Your task to perform on an android device: turn off wifi Image 0: 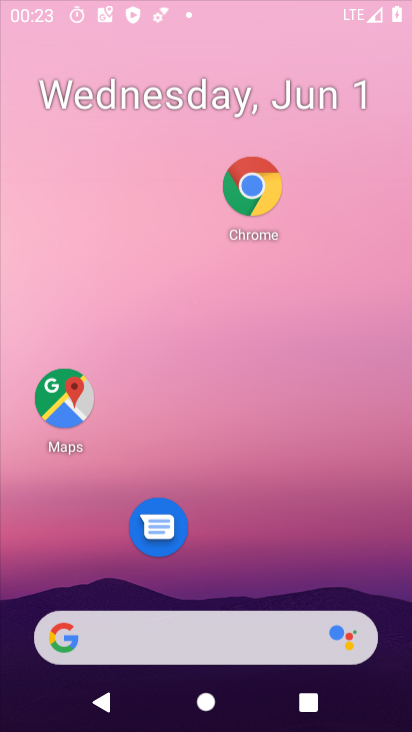
Step 0: click (5, 361)
Your task to perform on an android device: turn off wifi Image 1: 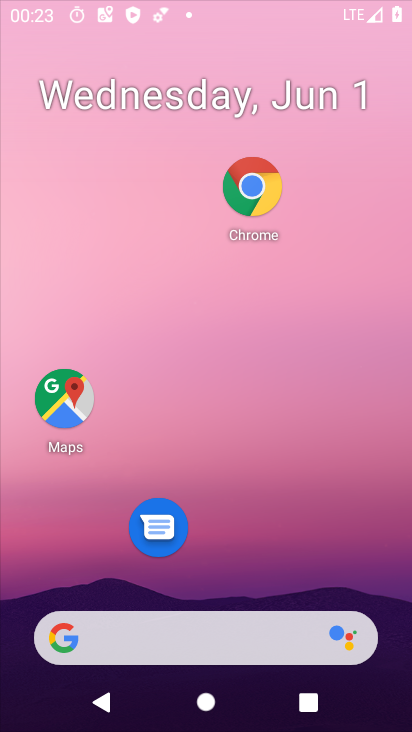
Step 1: drag from (210, 516) to (168, 210)
Your task to perform on an android device: turn off wifi Image 2: 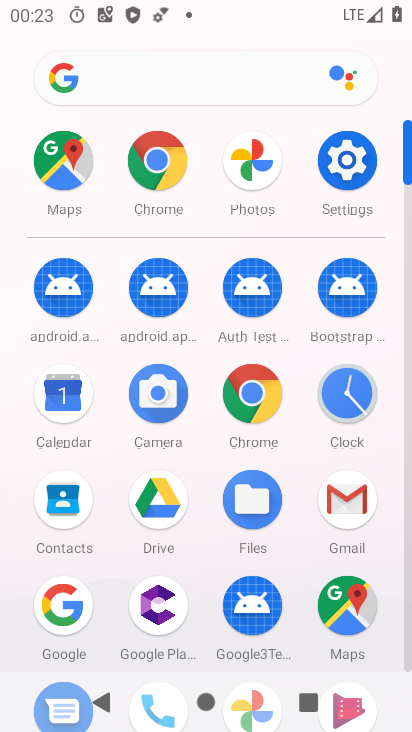
Step 2: click (351, 162)
Your task to perform on an android device: turn off wifi Image 3: 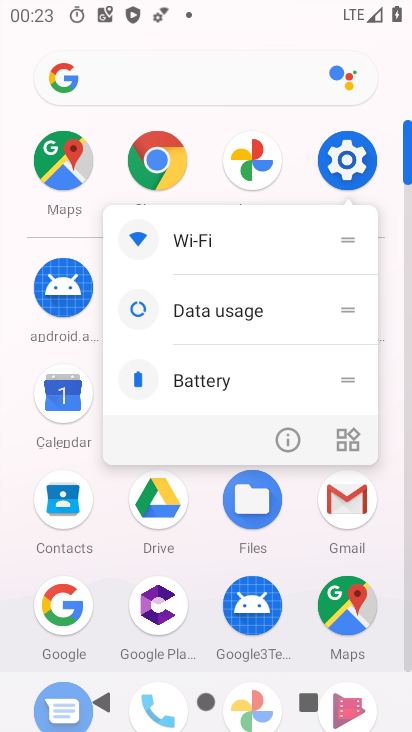
Step 3: click (289, 441)
Your task to perform on an android device: turn off wifi Image 4: 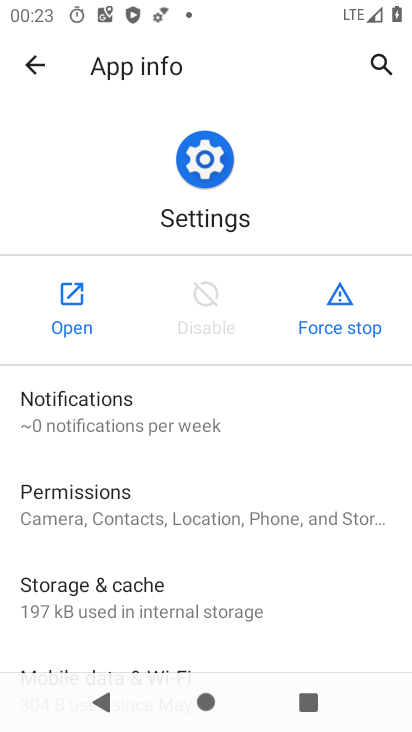
Step 4: click (82, 317)
Your task to perform on an android device: turn off wifi Image 5: 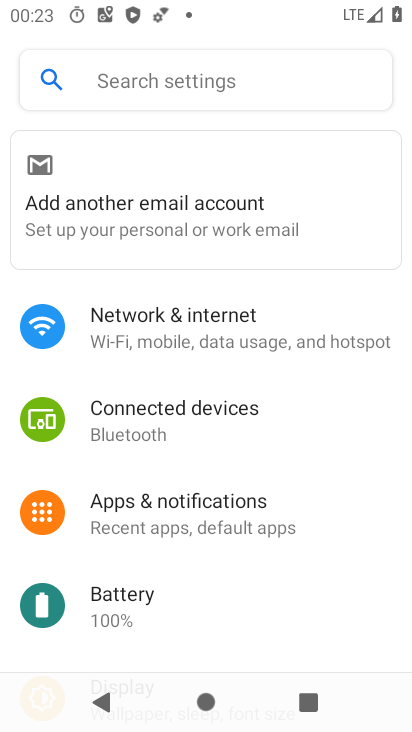
Step 5: click (170, 348)
Your task to perform on an android device: turn off wifi Image 6: 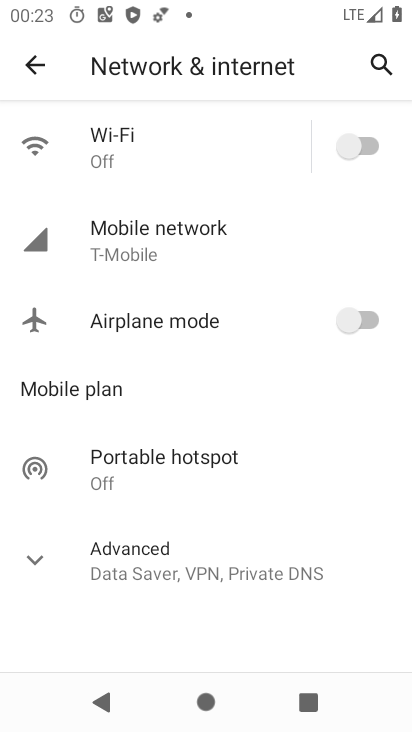
Step 6: drag from (230, 606) to (219, 333)
Your task to perform on an android device: turn off wifi Image 7: 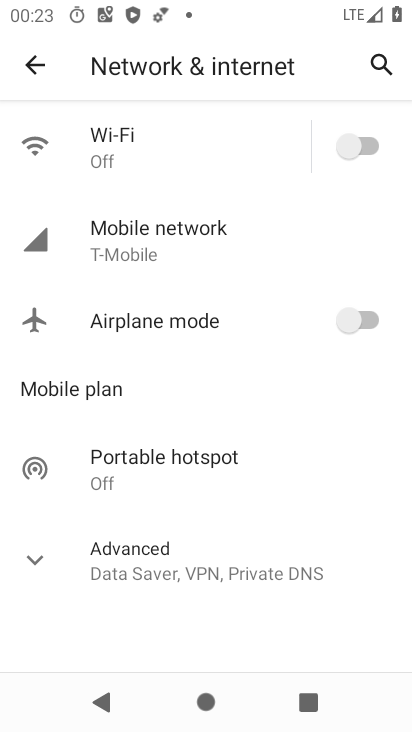
Step 7: drag from (204, 241) to (224, 532)
Your task to perform on an android device: turn off wifi Image 8: 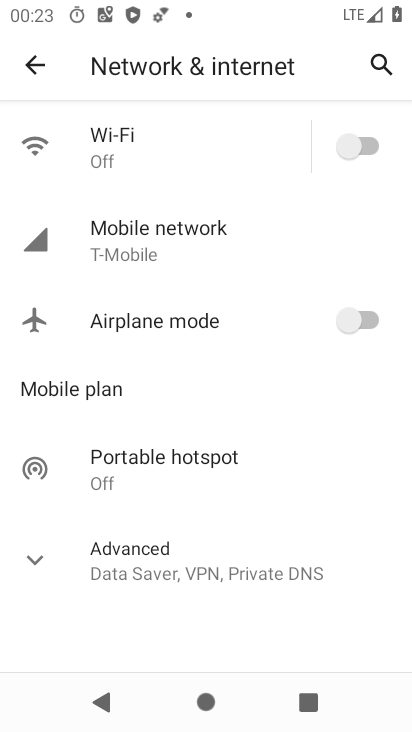
Step 8: click (220, 149)
Your task to perform on an android device: turn off wifi Image 9: 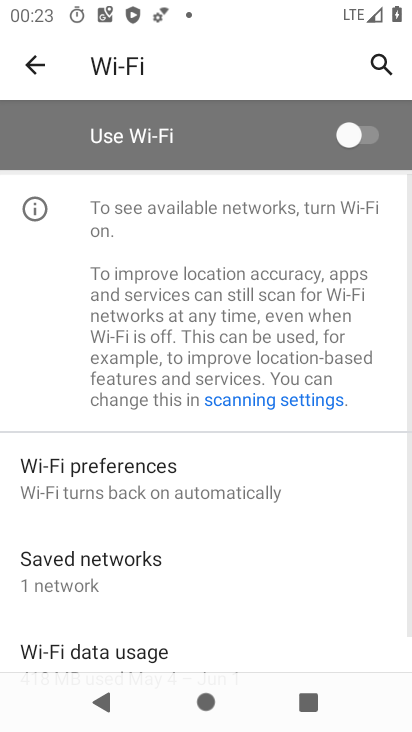
Step 9: task complete